Your task to perform on an android device: toggle improve location accuracy Image 0: 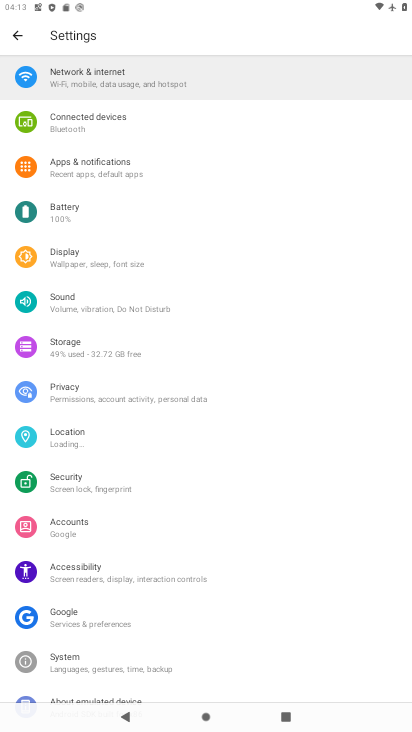
Step 0: press home button
Your task to perform on an android device: toggle improve location accuracy Image 1: 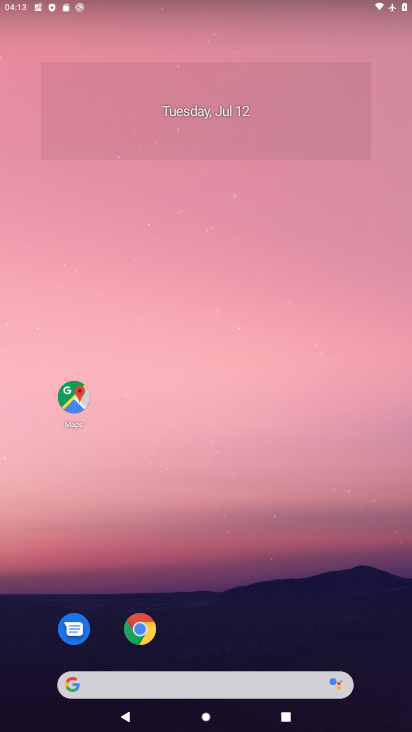
Step 1: drag from (264, 617) to (200, 211)
Your task to perform on an android device: toggle improve location accuracy Image 2: 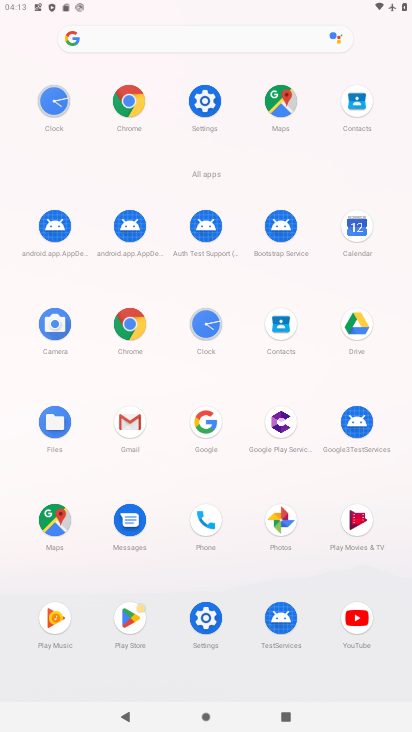
Step 2: click (203, 109)
Your task to perform on an android device: toggle improve location accuracy Image 3: 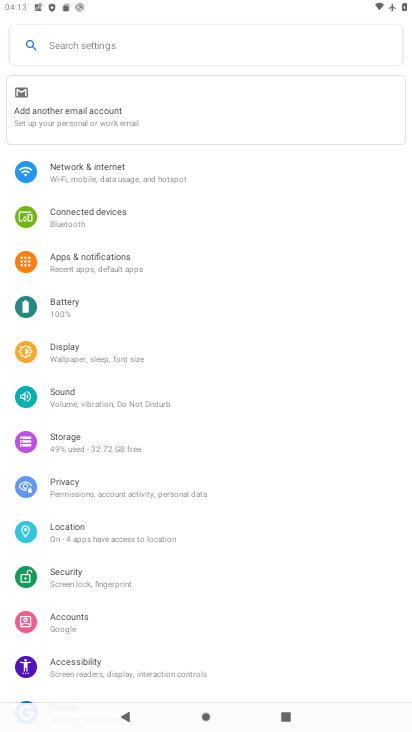
Step 3: click (80, 535)
Your task to perform on an android device: toggle improve location accuracy Image 4: 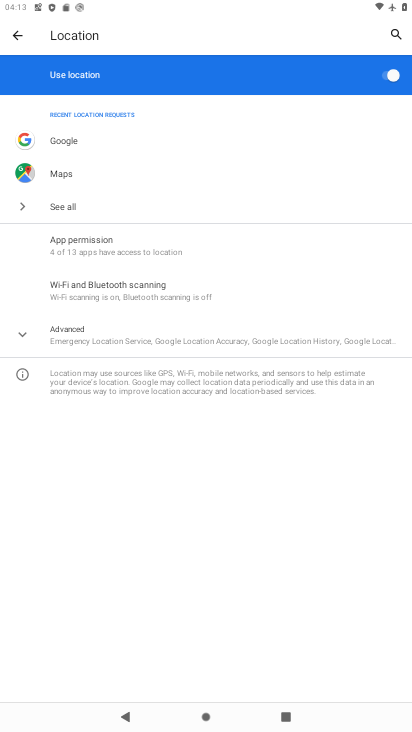
Step 4: click (89, 333)
Your task to perform on an android device: toggle improve location accuracy Image 5: 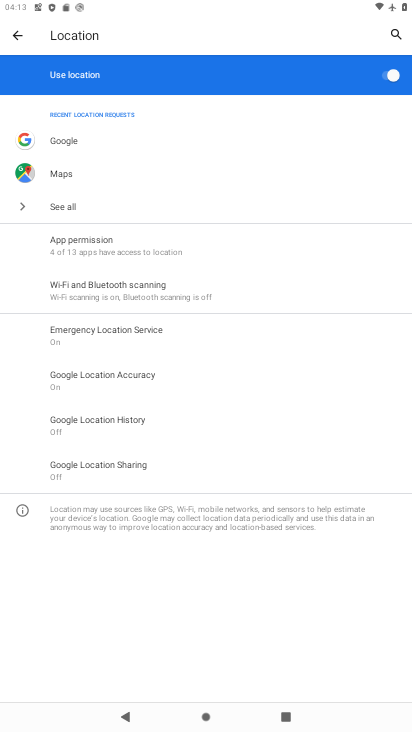
Step 5: click (125, 381)
Your task to perform on an android device: toggle improve location accuracy Image 6: 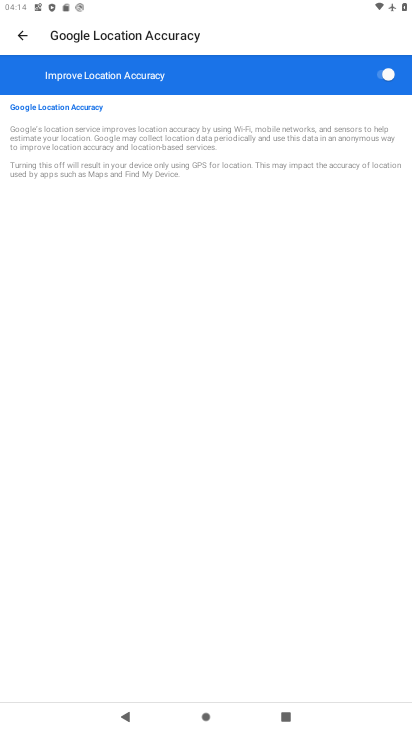
Step 6: click (385, 68)
Your task to perform on an android device: toggle improve location accuracy Image 7: 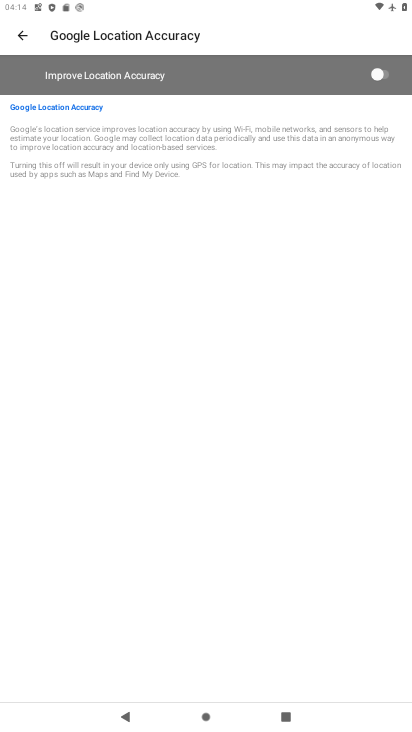
Step 7: task complete